Your task to perform on an android device: toggle sleep mode Image 0: 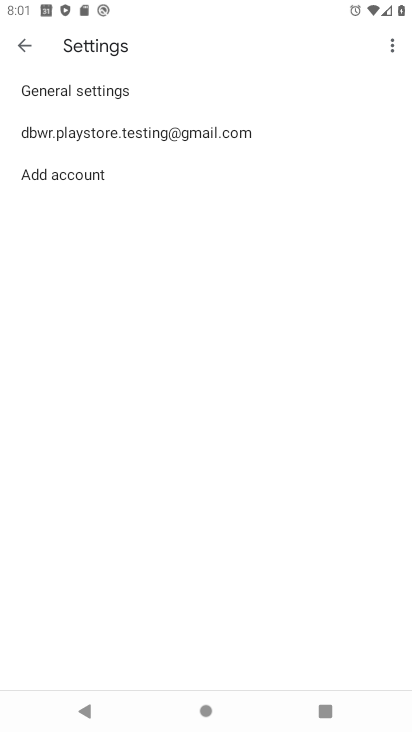
Step 0: press home button
Your task to perform on an android device: toggle sleep mode Image 1: 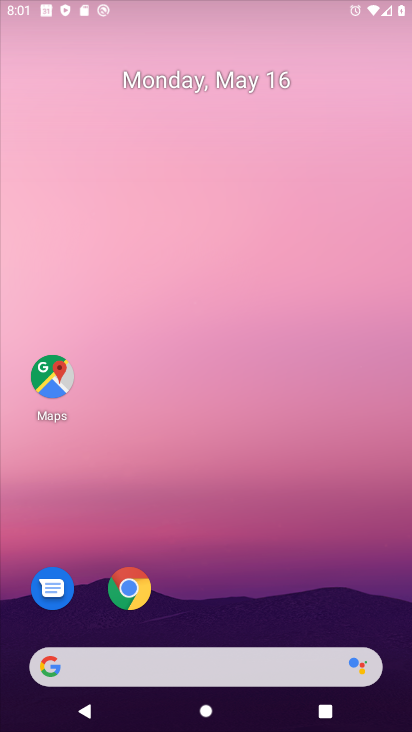
Step 1: drag from (267, 644) to (101, 179)
Your task to perform on an android device: toggle sleep mode Image 2: 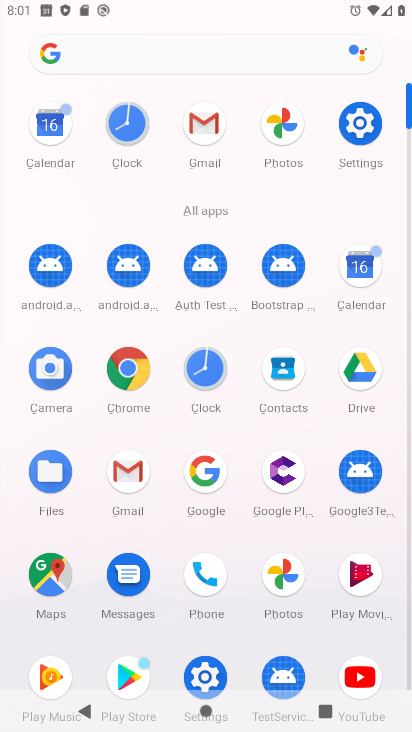
Step 2: click (361, 116)
Your task to perform on an android device: toggle sleep mode Image 3: 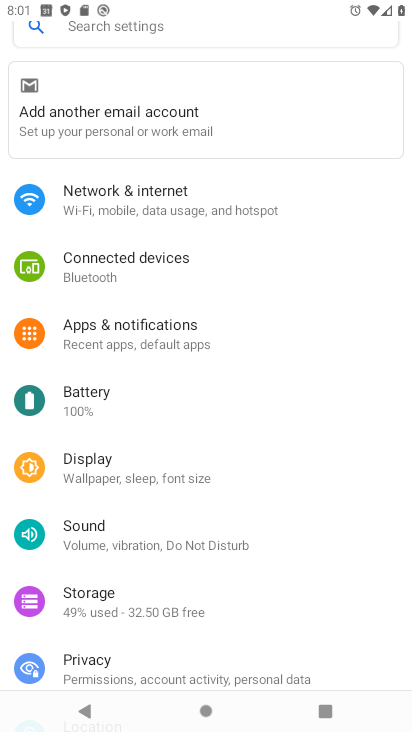
Step 3: drag from (155, 593) to (129, 115)
Your task to perform on an android device: toggle sleep mode Image 4: 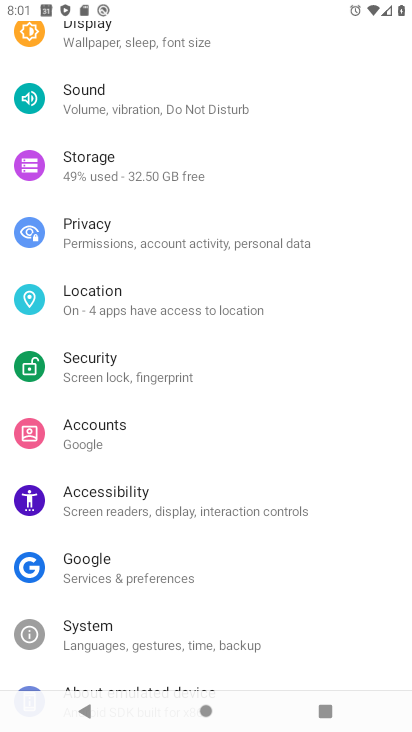
Step 4: click (90, 36)
Your task to perform on an android device: toggle sleep mode Image 5: 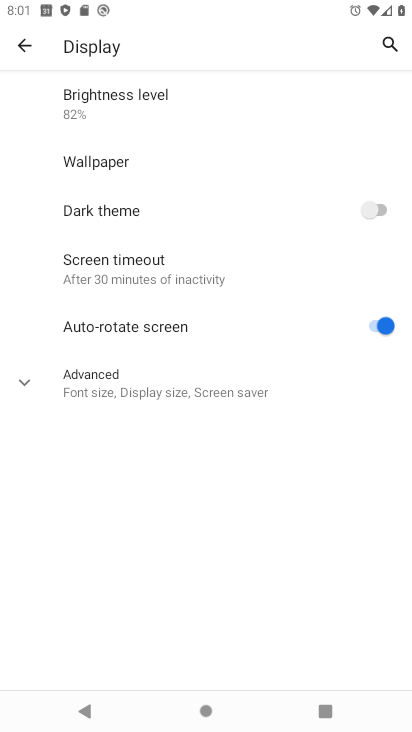
Step 5: click (135, 259)
Your task to perform on an android device: toggle sleep mode Image 6: 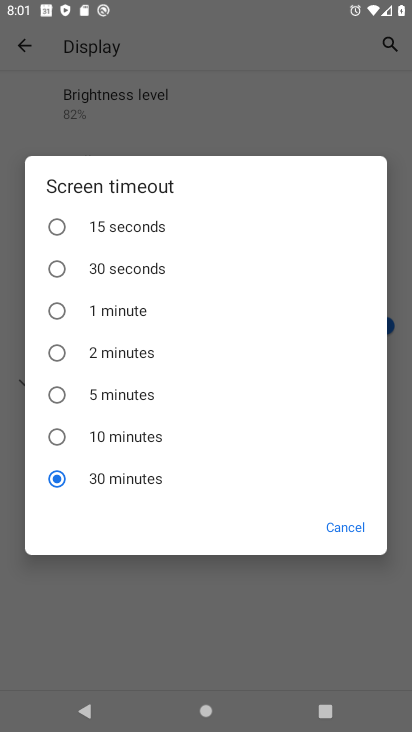
Step 6: click (57, 383)
Your task to perform on an android device: toggle sleep mode Image 7: 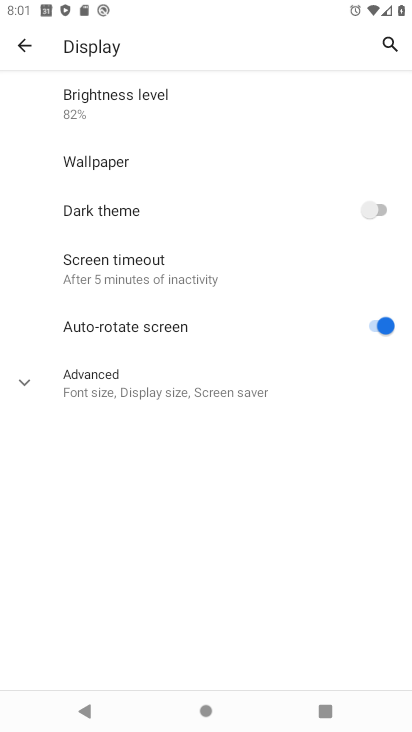
Step 7: task complete